Your task to perform on an android device: add a contact in the contacts app Image 0: 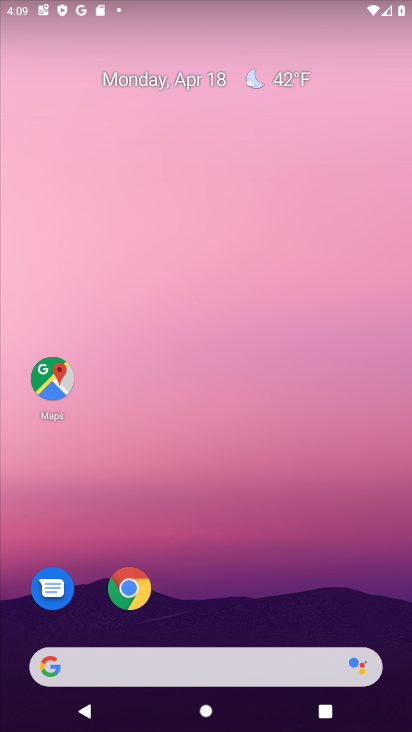
Step 0: drag from (230, 580) to (235, 285)
Your task to perform on an android device: add a contact in the contacts app Image 1: 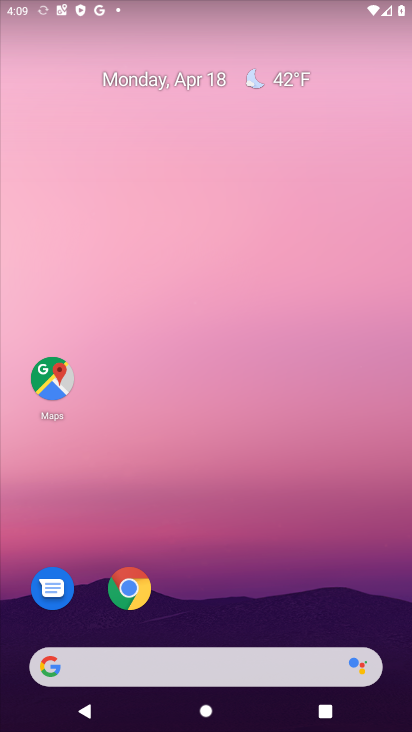
Step 1: drag from (246, 370) to (254, 75)
Your task to perform on an android device: add a contact in the contacts app Image 2: 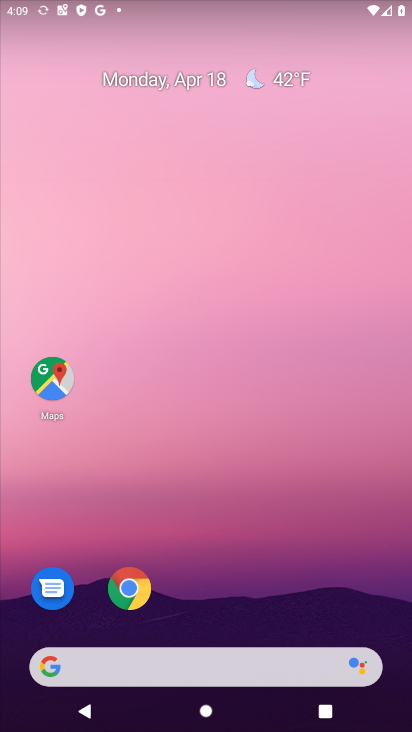
Step 2: drag from (235, 151) to (237, 47)
Your task to perform on an android device: add a contact in the contacts app Image 3: 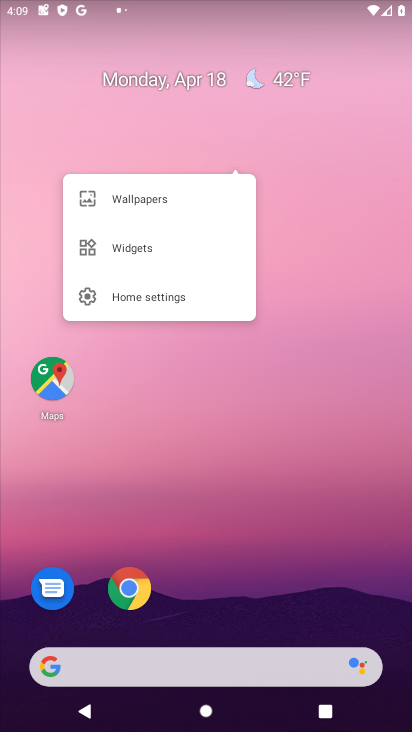
Step 3: drag from (202, 580) to (259, 148)
Your task to perform on an android device: add a contact in the contacts app Image 4: 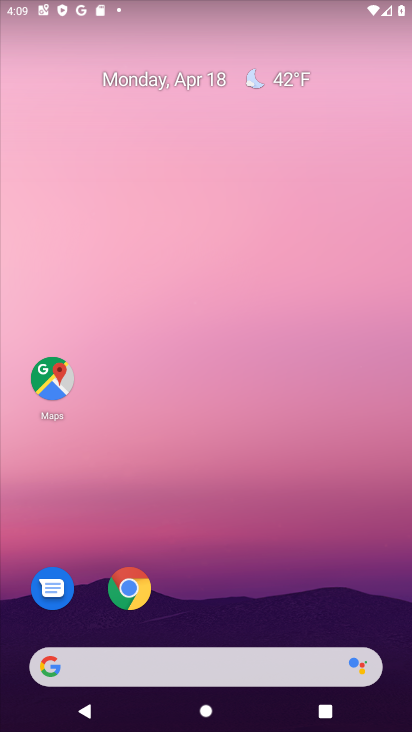
Step 4: drag from (336, 508) to (333, 209)
Your task to perform on an android device: add a contact in the contacts app Image 5: 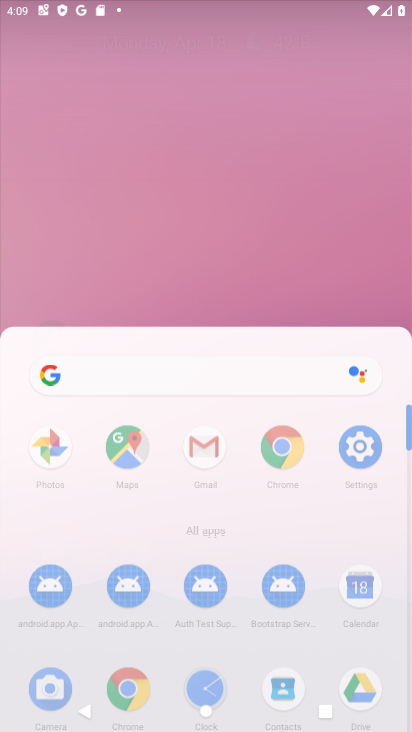
Step 5: drag from (229, 586) to (257, 151)
Your task to perform on an android device: add a contact in the contacts app Image 6: 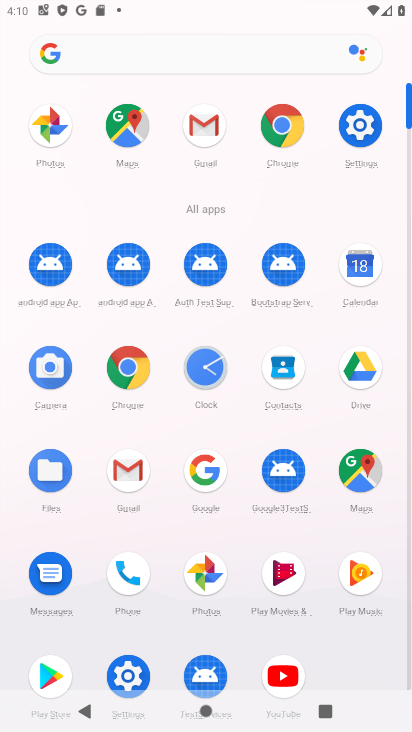
Step 6: click (291, 377)
Your task to perform on an android device: add a contact in the contacts app Image 7: 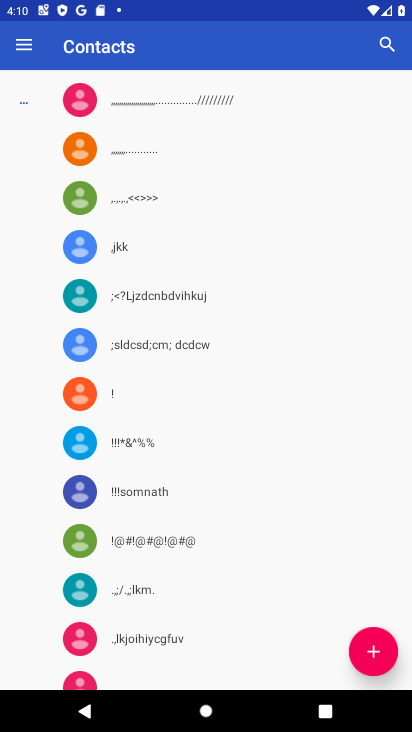
Step 7: click (372, 629)
Your task to perform on an android device: add a contact in the contacts app Image 8: 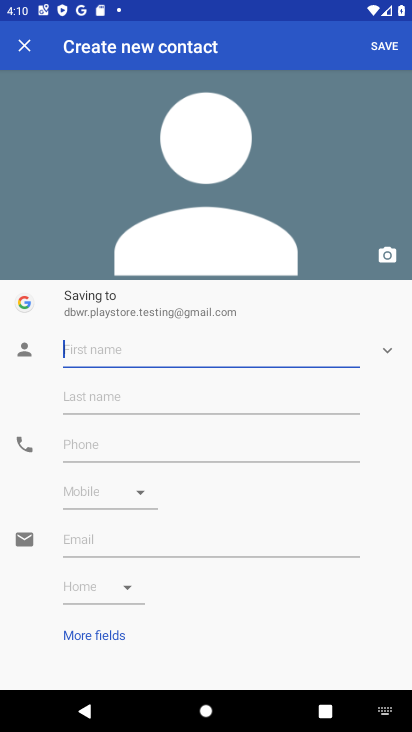
Step 8: type "Super man"
Your task to perform on an android device: add a contact in the contacts app Image 9: 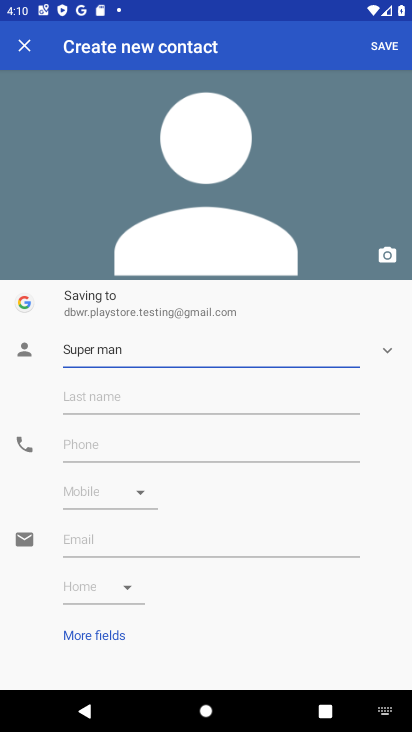
Step 9: click (190, 445)
Your task to perform on an android device: add a contact in the contacts app Image 10: 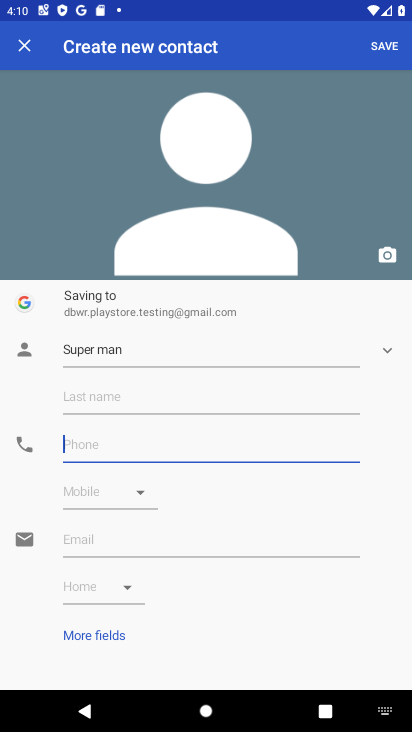
Step 10: click (178, 450)
Your task to perform on an android device: add a contact in the contacts app Image 11: 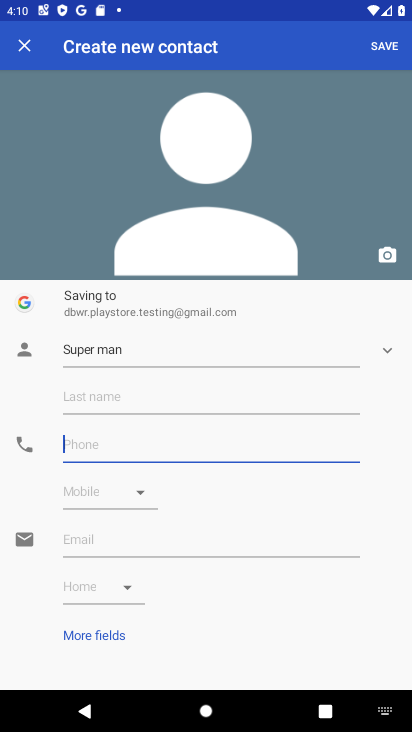
Step 11: type "123456789"
Your task to perform on an android device: add a contact in the contacts app Image 12: 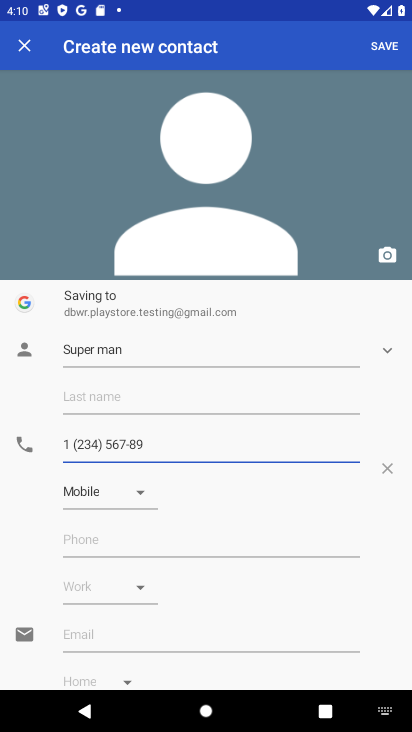
Step 12: click (381, 54)
Your task to perform on an android device: add a contact in the contacts app Image 13: 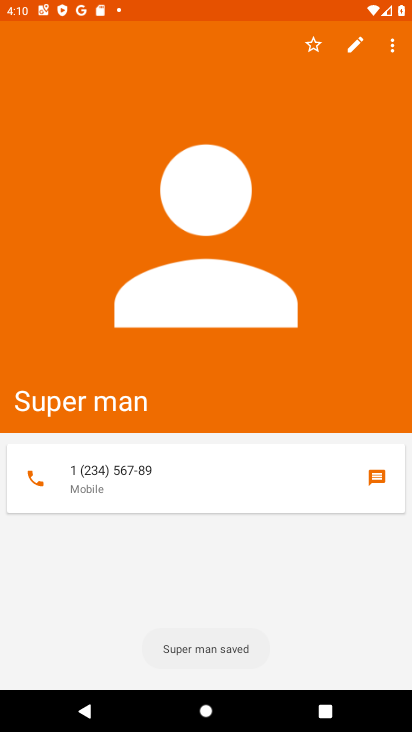
Step 13: task complete